Your task to perform on an android device: turn off smart reply in the gmail app Image 0: 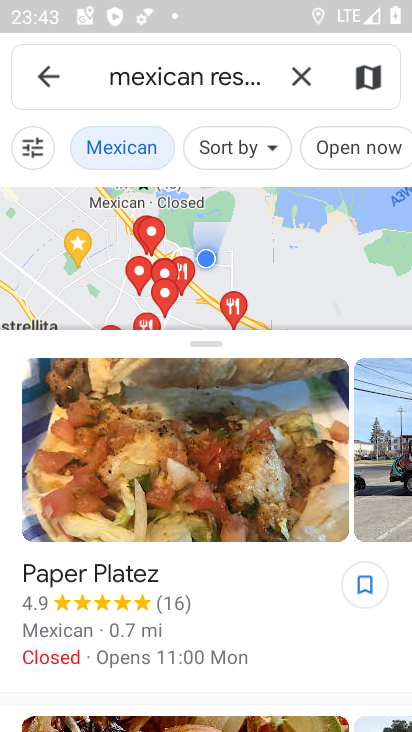
Step 0: press home button
Your task to perform on an android device: turn off smart reply in the gmail app Image 1: 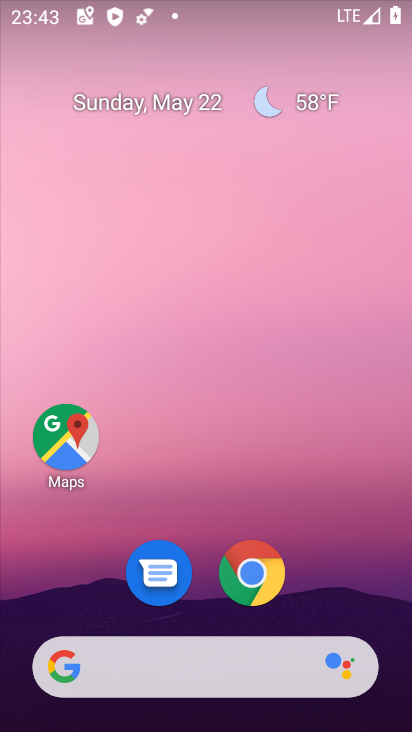
Step 1: drag from (192, 621) to (237, 6)
Your task to perform on an android device: turn off smart reply in the gmail app Image 2: 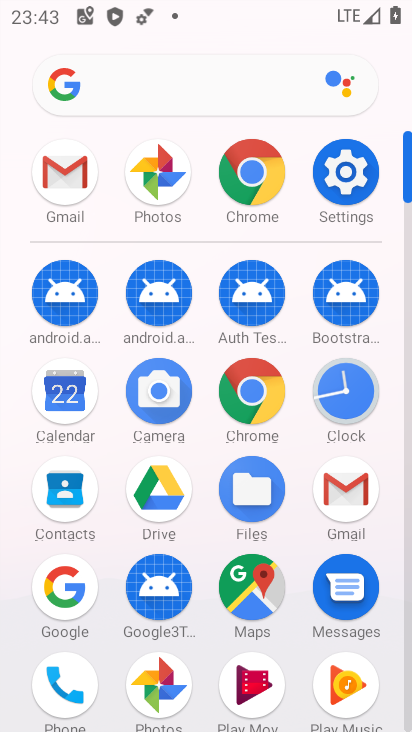
Step 2: click (345, 504)
Your task to perform on an android device: turn off smart reply in the gmail app Image 3: 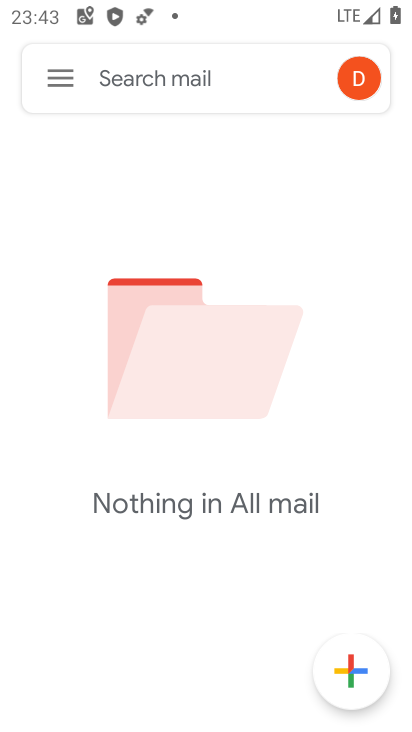
Step 3: click (55, 59)
Your task to perform on an android device: turn off smart reply in the gmail app Image 4: 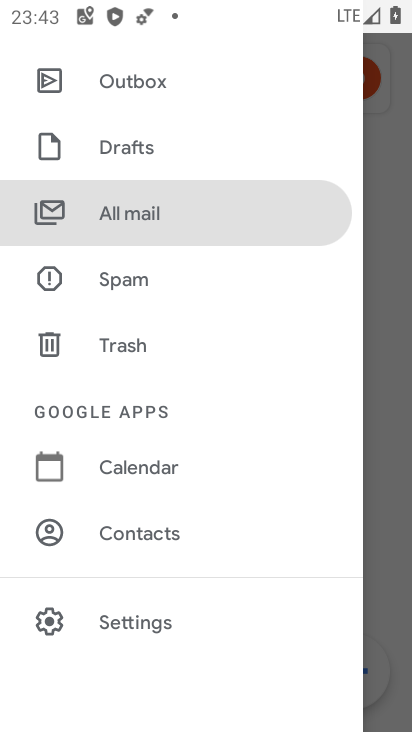
Step 4: click (117, 623)
Your task to perform on an android device: turn off smart reply in the gmail app Image 5: 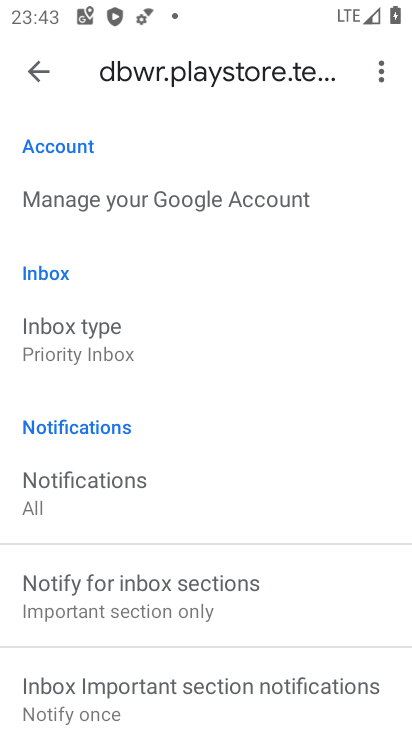
Step 5: task complete